Your task to perform on an android device: turn off priority inbox in the gmail app Image 0: 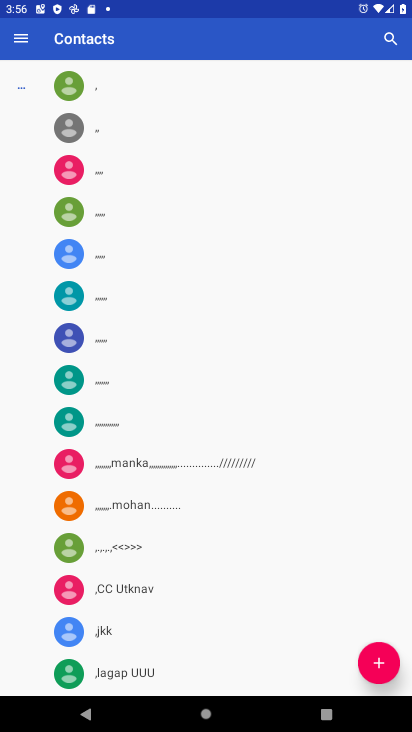
Step 0: press home button
Your task to perform on an android device: turn off priority inbox in the gmail app Image 1: 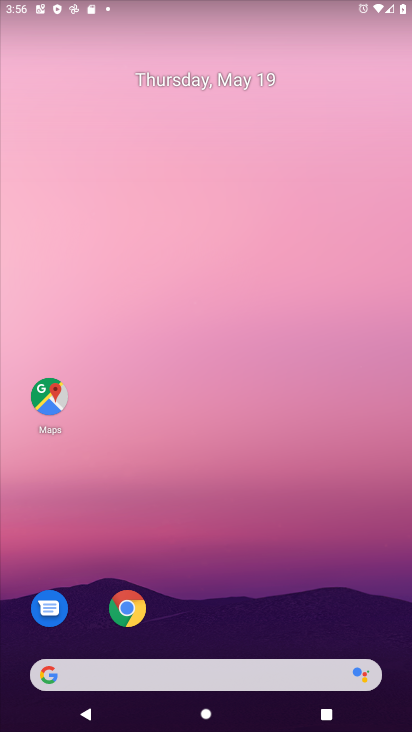
Step 1: drag from (362, 637) to (306, 98)
Your task to perform on an android device: turn off priority inbox in the gmail app Image 2: 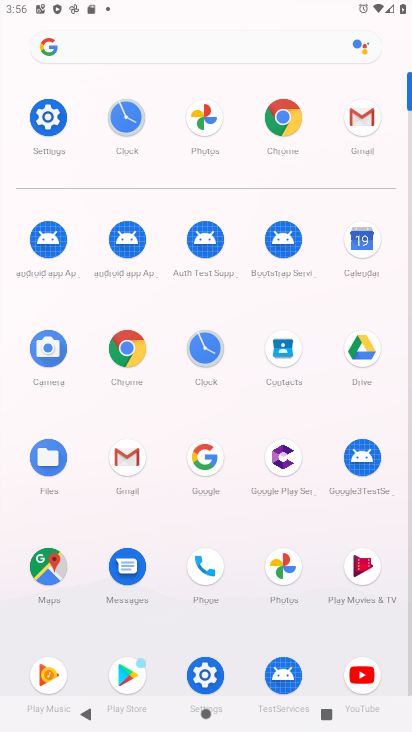
Step 2: click (140, 462)
Your task to perform on an android device: turn off priority inbox in the gmail app Image 3: 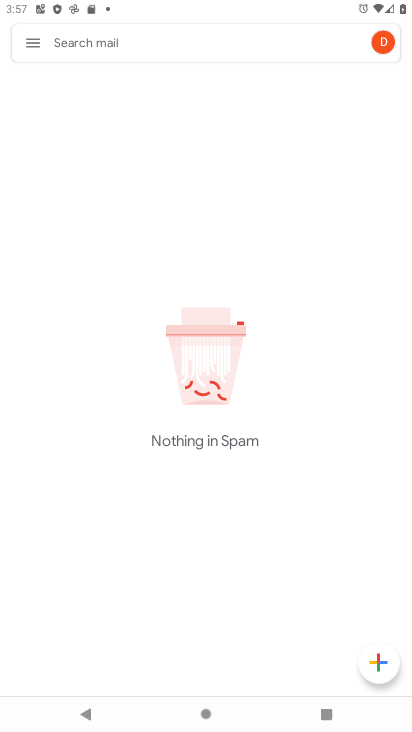
Step 3: click (24, 41)
Your task to perform on an android device: turn off priority inbox in the gmail app Image 4: 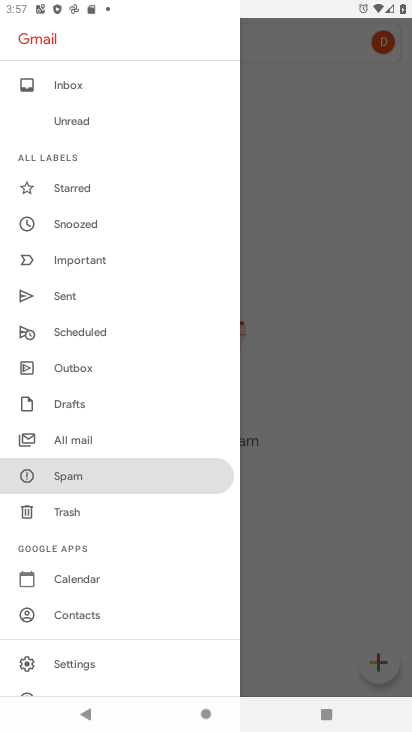
Step 4: click (191, 665)
Your task to perform on an android device: turn off priority inbox in the gmail app Image 5: 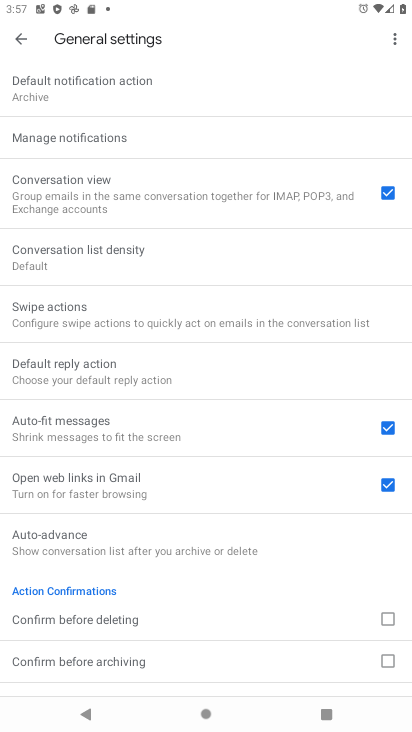
Step 5: drag from (136, 296) to (120, 221)
Your task to perform on an android device: turn off priority inbox in the gmail app Image 6: 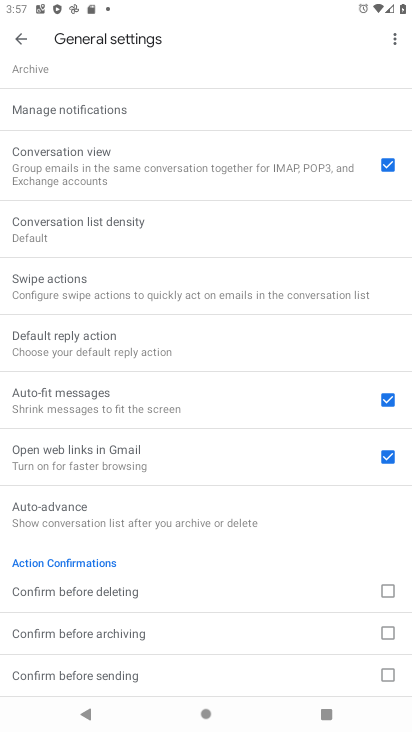
Step 6: drag from (73, 282) to (139, 533)
Your task to perform on an android device: turn off priority inbox in the gmail app Image 7: 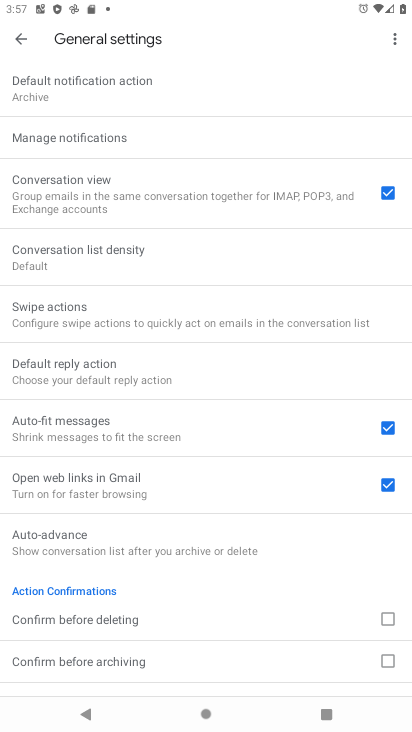
Step 7: drag from (85, 131) to (81, 170)
Your task to perform on an android device: turn off priority inbox in the gmail app Image 8: 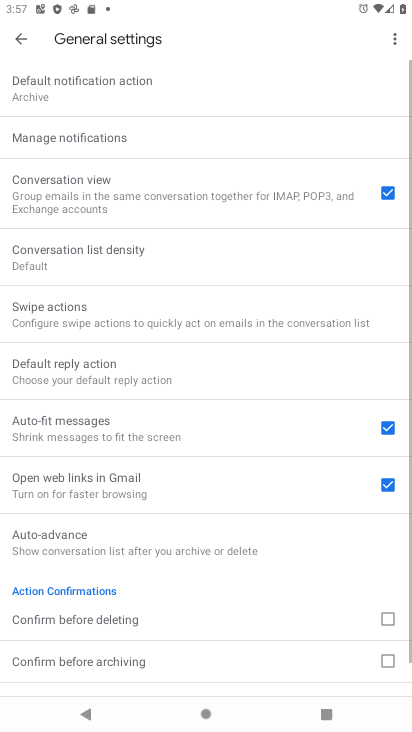
Step 8: click (23, 37)
Your task to perform on an android device: turn off priority inbox in the gmail app Image 9: 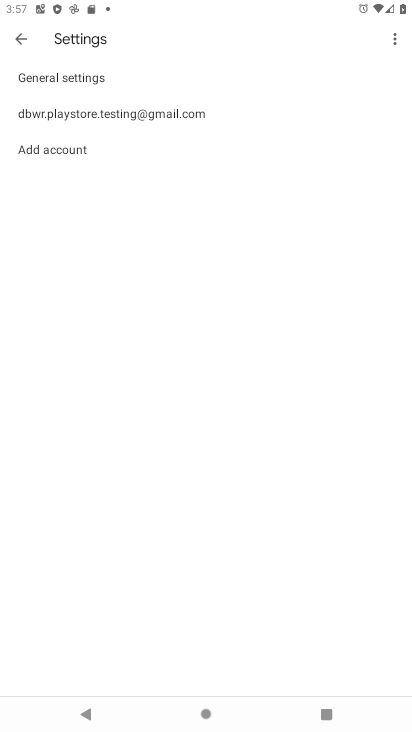
Step 9: click (57, 114)
Your task to perform on an android device: turn off priority inbox in the gmail app Image 10: 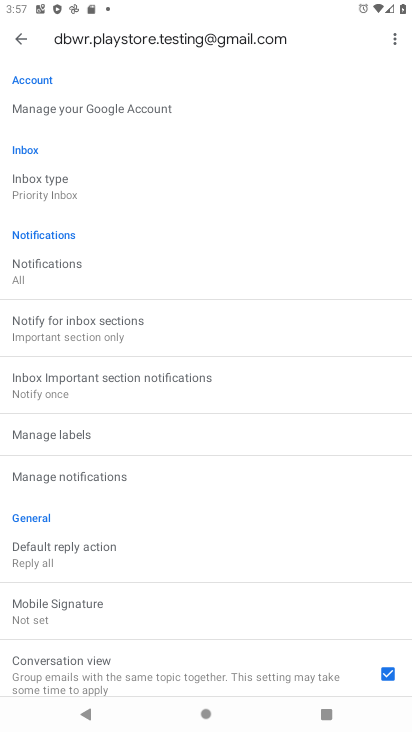
Step 10: task complete